Your task to perform on an android device: toggle pop-ups in chrome Image 0: 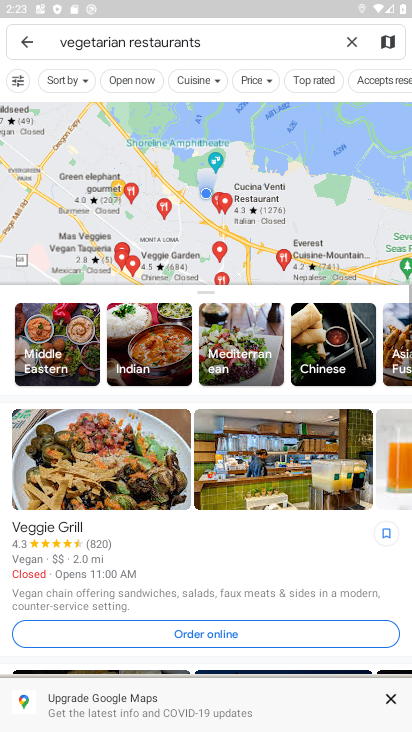
Step 0: press home button
Your task to perform on an android device: toggle pop-ups in chrome Image 1: 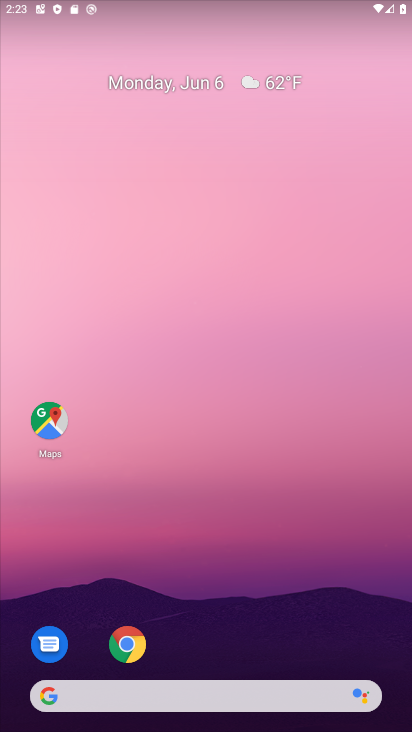
Step 1: click (134, 632)
Your task to perform on an android device: toggle pop-ups in chrome Image 2: 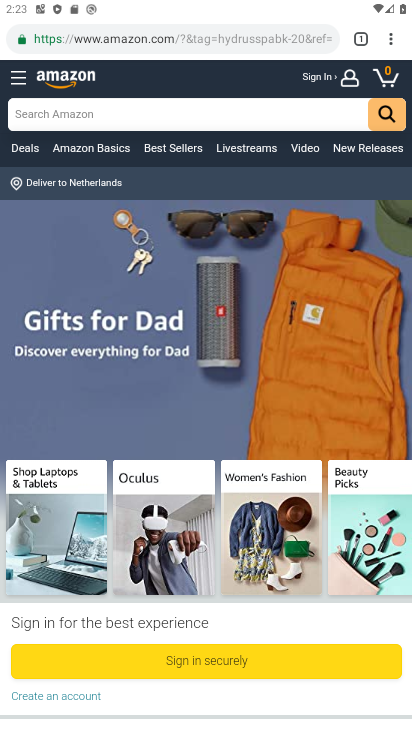
Step 2: click (387, 39)
Your task to perform on an android device: toggle pop-ups in chrome Image 3: 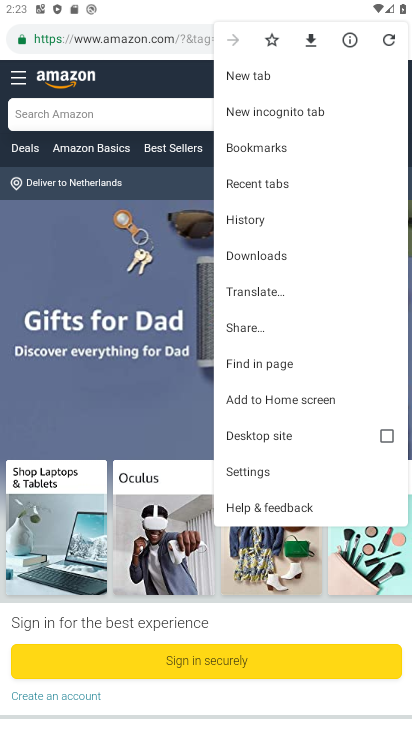
Step 3: click (276, 470)
Your task to perform on an android device: toggle pop-ups in chrome Image 4: 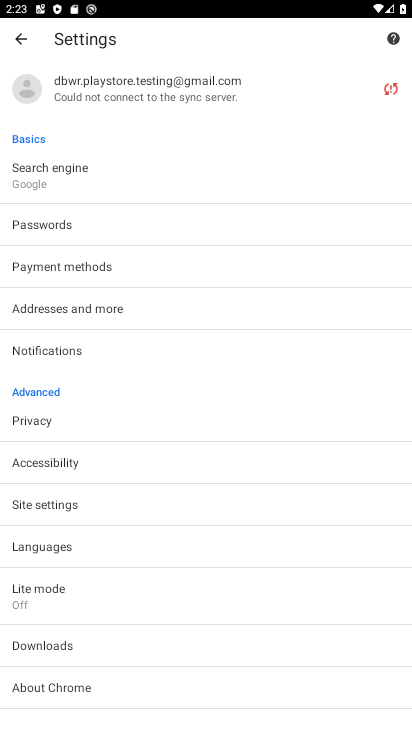
Step 4: click (77, 514)
Your task to perform on an android device: toggle pop-ups in chrome Image 5: 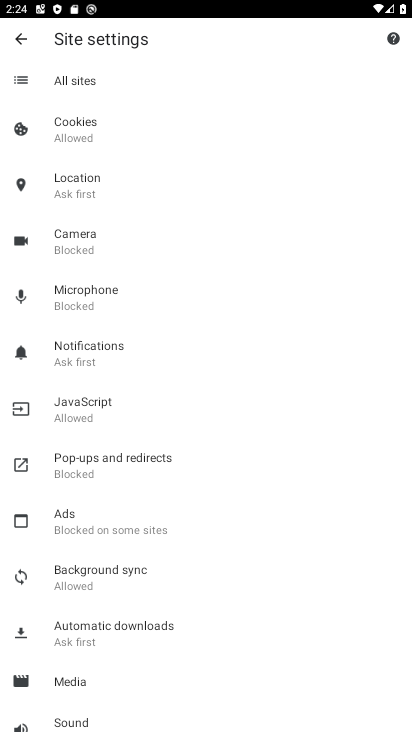
Step 5: click (90, 464)
Your task to perform on an android device: toggle pop-ups in chrome Image 6: 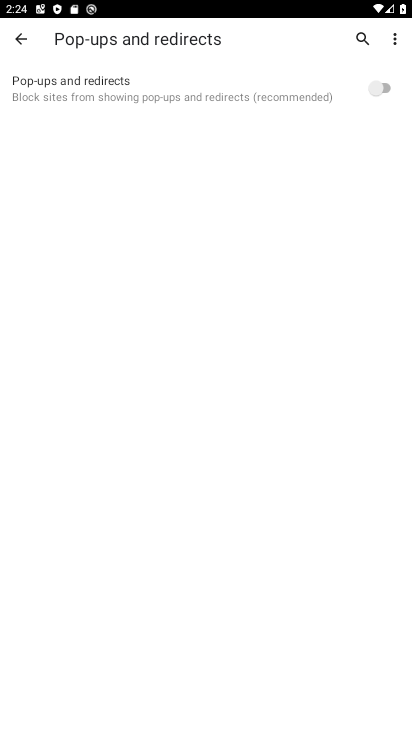
Step 6: click (370, 89)
Your task to perform on an android device: toggle pop-ups in chrome Image 7: 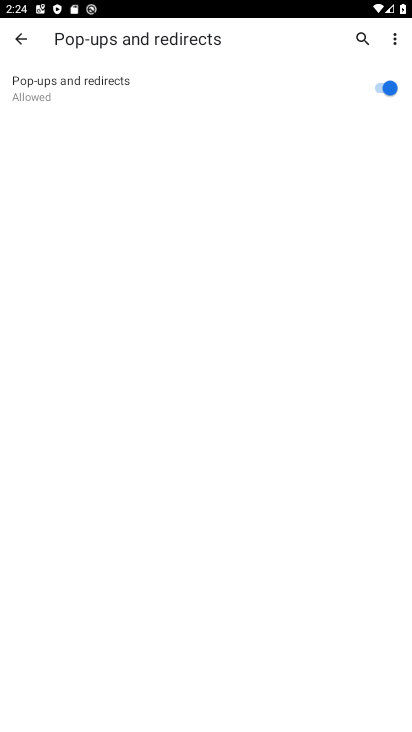
Step 7: task complete